Your task to perform on an android device: Go to sound settings Image 0: 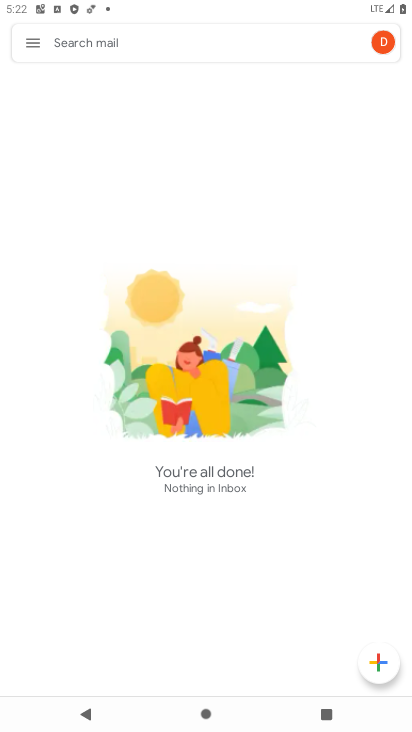
Step 0: press home button
Your task to perform on an android device: Go to sound settings Image 1: 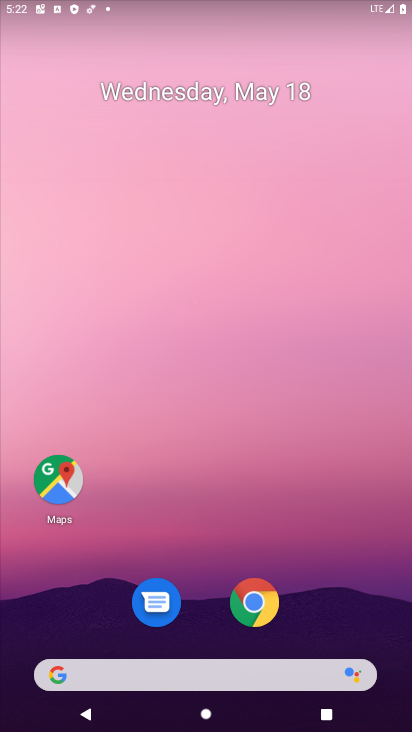
Step 1: drag from (331, 669) to (298, 16)
Your task to perform on an android device: Go to sound settings Image 2: 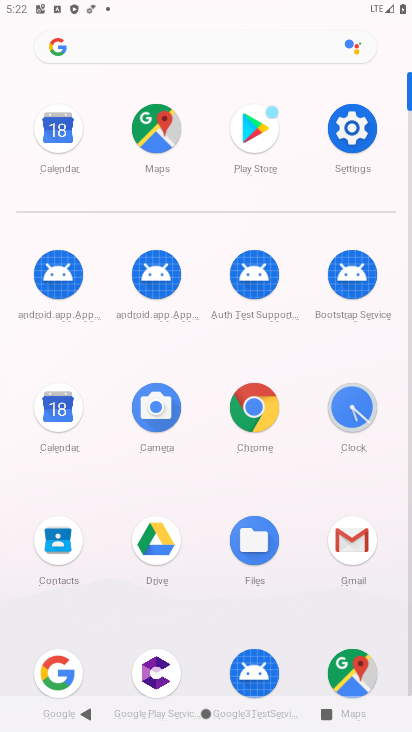
Step 2: click (356, 123)
Your task to perform on an android device: Go to sound settings Image 3: 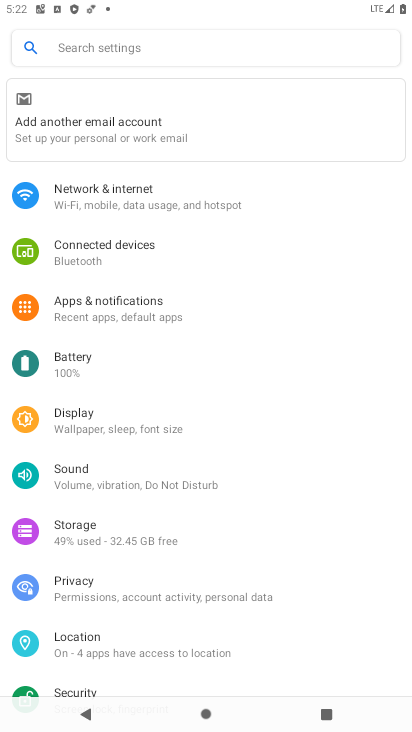
Step 3: click (89, 485)
Your task to perform on an android device: Go to sound settings Image 4: 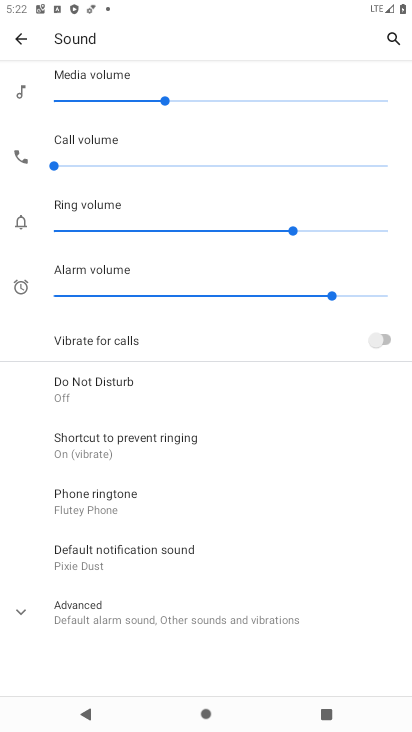
Step 4: task complete